Your task to perform on an android device: show emergency info Image 0: 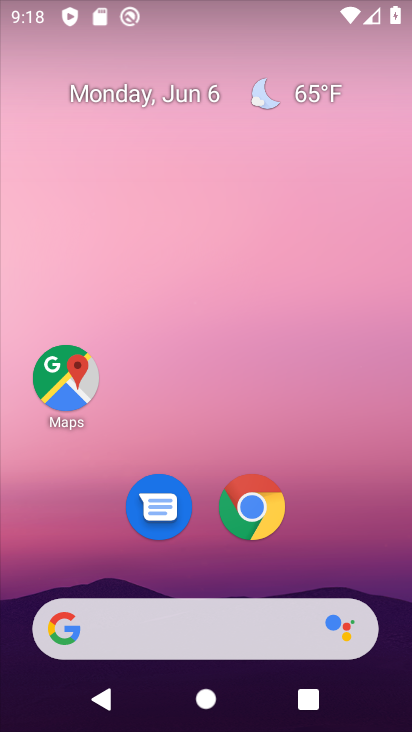
Step 0: drag from (305, 580) to (339, 203)
Your task to perform on an android device: show emergency info Image 1: 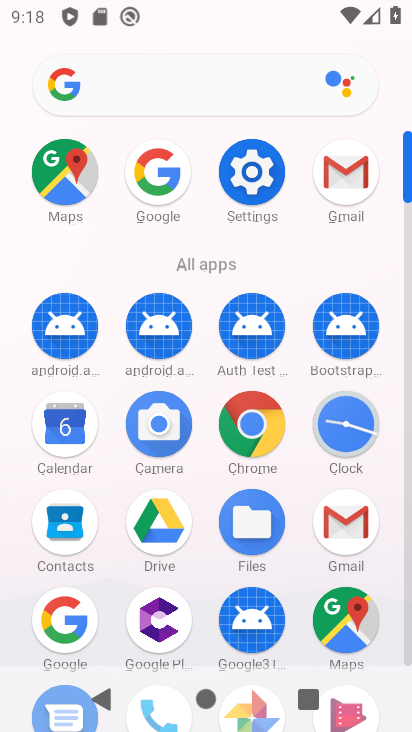
Step 1: click (262, 166)
Your task to perform on an android device: show emergency info Image 2: 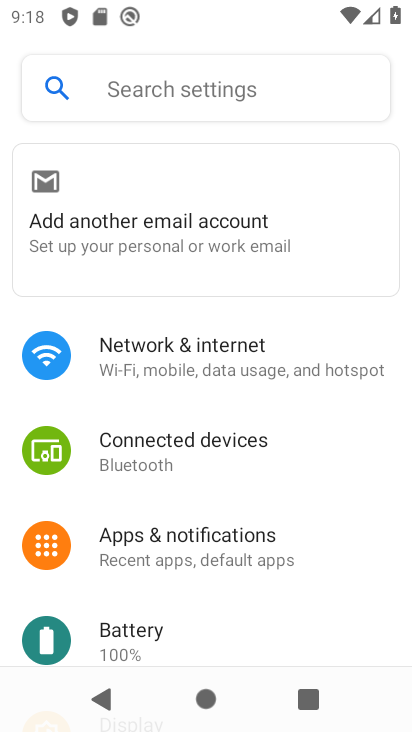
Step 2: drag from (229, 587) to (289, 224)
Your task to perform on an android device: show emergency info Image 3: 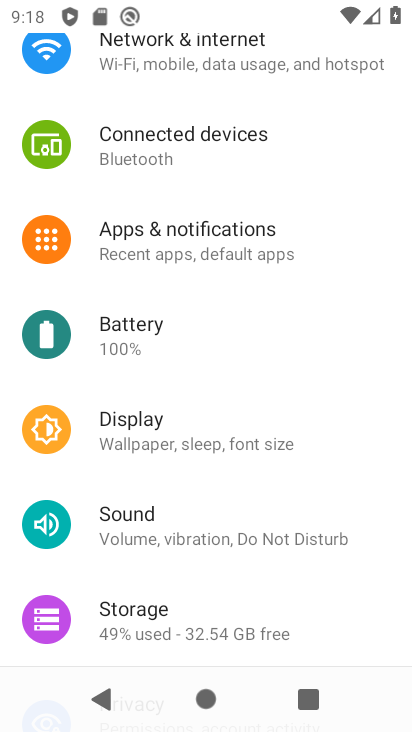
Step 3: drag from (205, 582) to (234, 251)
Your task to perform on an android device: show emergency info Image 4: 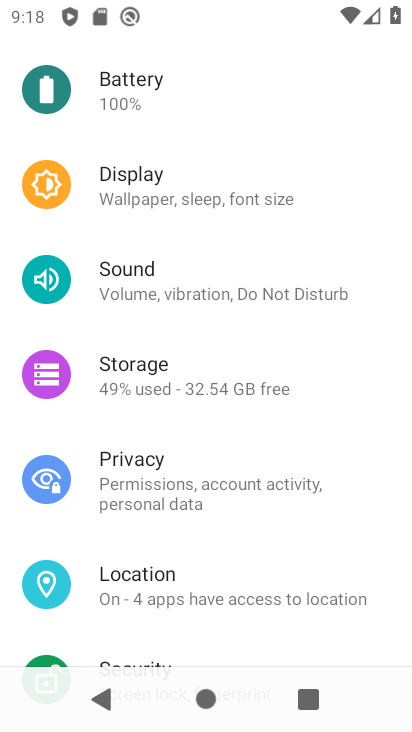
Step 4: drag from (209, 605) to (266, 198)
Your task to perform on an android device: show emergency info Image 5: 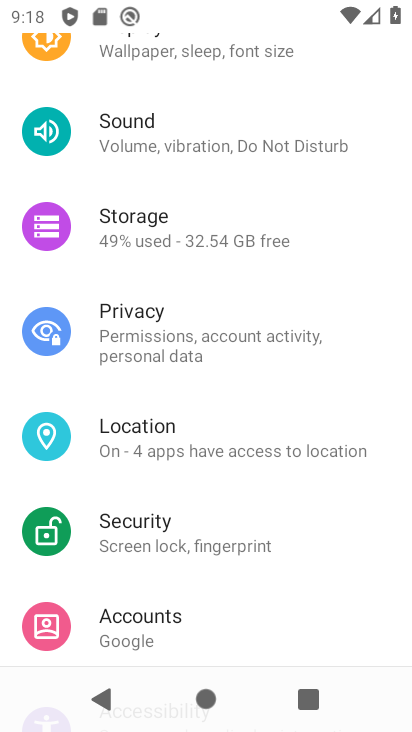
Step 5: drag from (192, 640) to (245, 205)
Your task to perform on an android device: show emergency info Image 6: 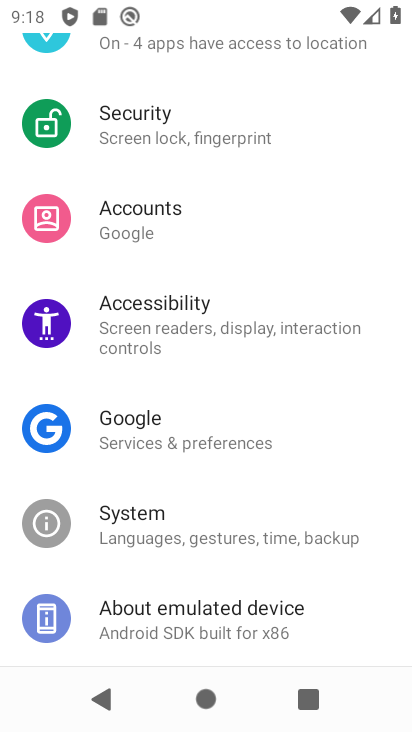
Step 6: drag from (162, 630) to (226, 260)
Your task to perform on an android device: show emergency info Image 7: 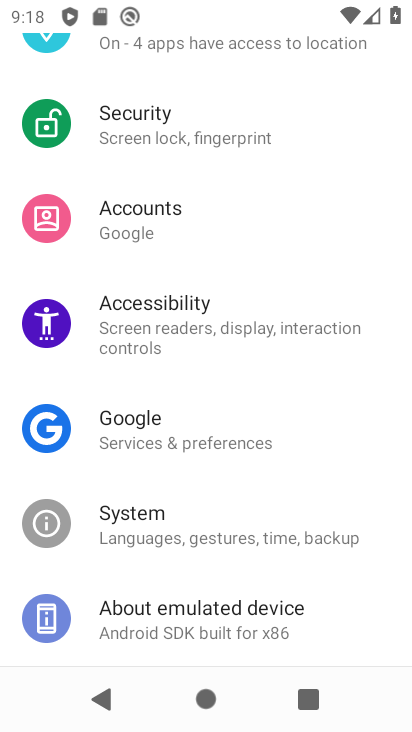
Step 7: click (142, 606)
Your task to perform on an android device: show emergency info Image 8: 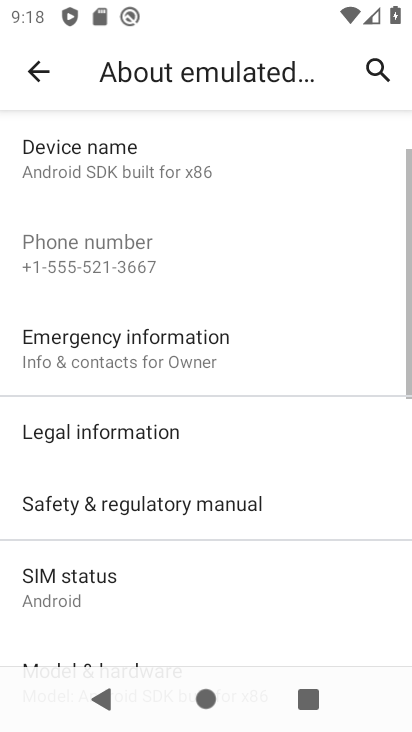
Step 8: drag from (142, 603) to (240, 195)
Your task to perform on an android device: show emergency info Image 9: 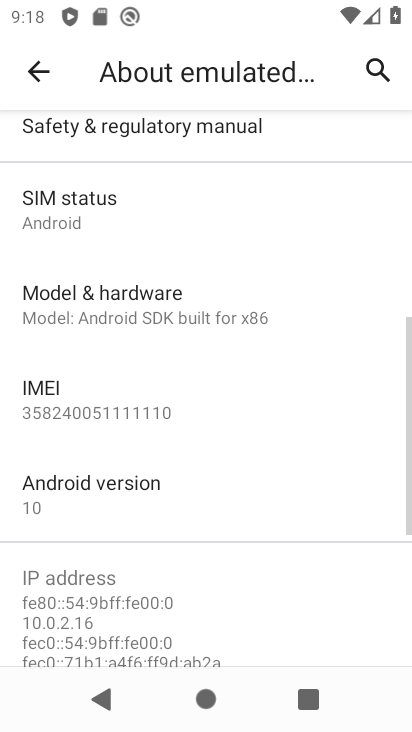
Step 9: drag from (121, 621) to (202, 215)
Your task to perform on an android device: show emergency info Image 10: 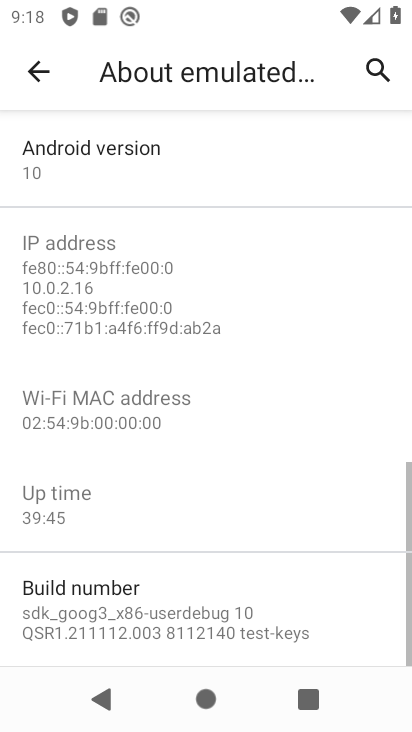
Step 10: drag from (259, 191) to (259, 605)
Your task to perform on an android device: show emergency info Image 11: 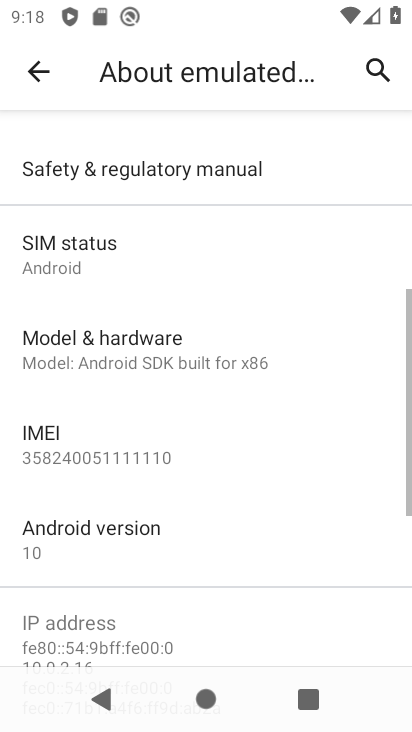
Step 11: drag from (188, 274) to (211, 545)
Your task to perform on an android device: show emergency info Image 12: 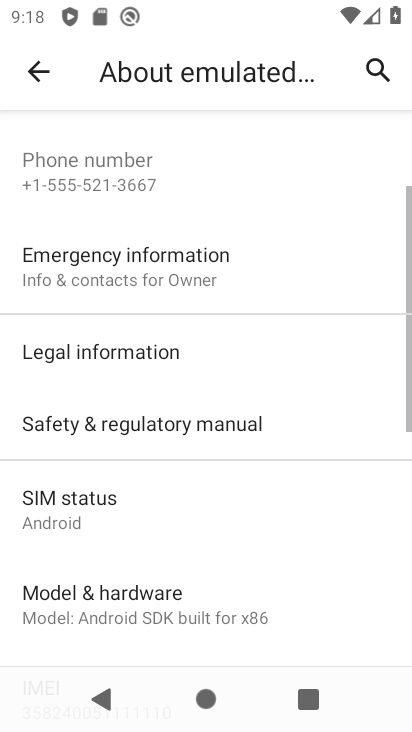
Step 12: click (156, 276)
Your task to perform on an android device: show emergency info Image 13: 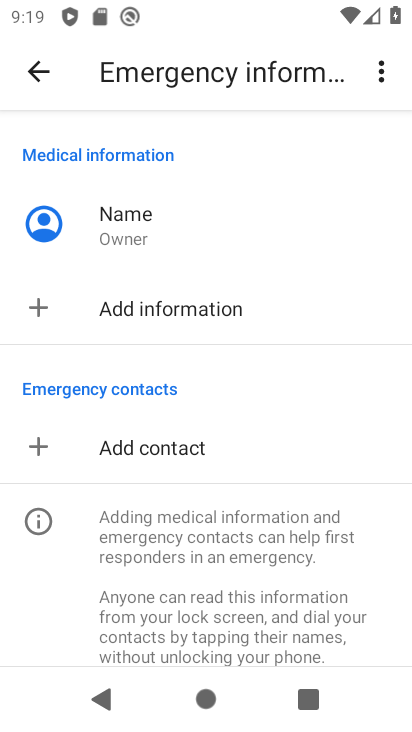
Step 13: task complete